Your task to perform on an android device: star an email in the gmail app Image 0: 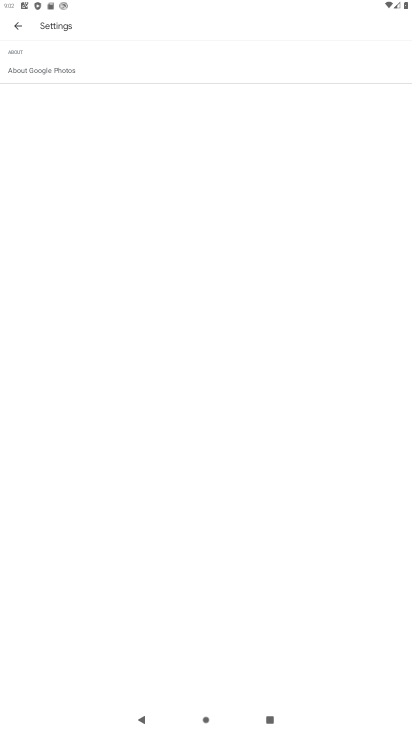
Step 0: press home button
Your task to perform on an android device: star an email in the gmail app Image 1: 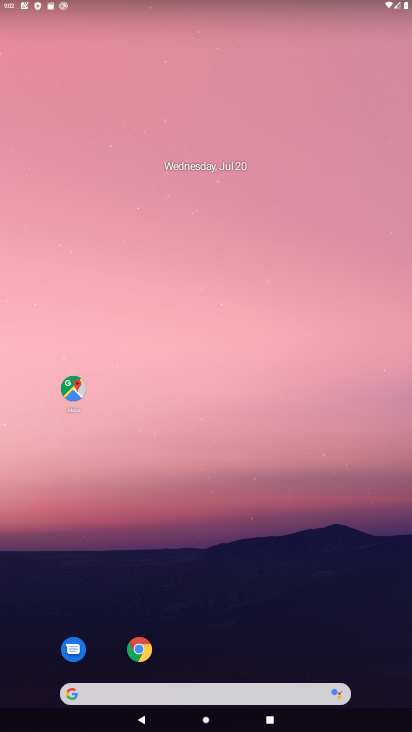
Step 1: drag from (284, 631) to (232, 123)
Your task to perform on an android device: star an email in the gmail app Image 2: 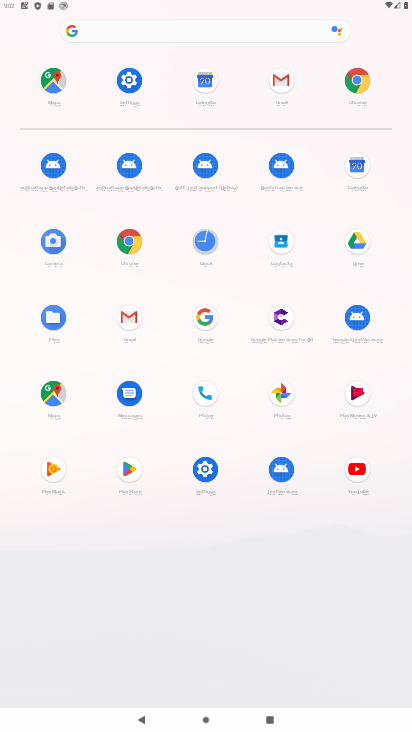
Step 2: click (271, 109)
Your task to perform on an android device: star an email in the gmail app Image 3: 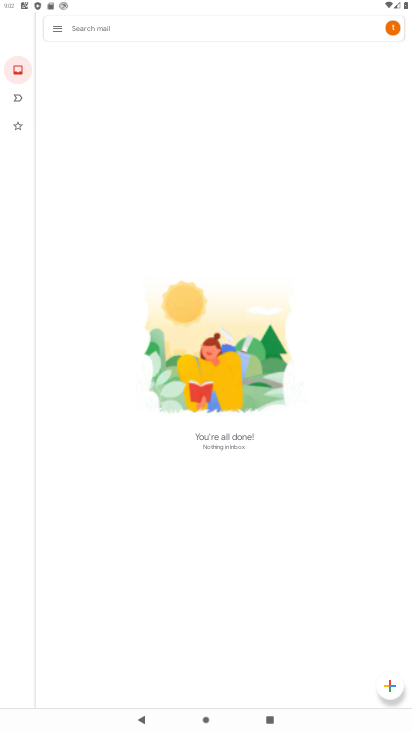
Step 3: task complete